Your task to perform on an android device: Open Wikipedia Image 0: 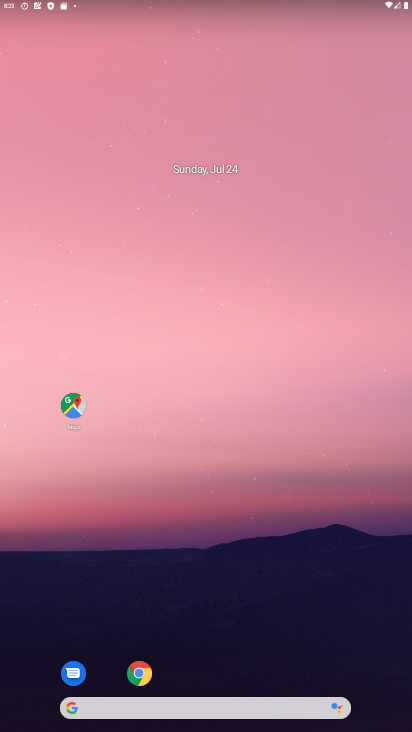
Step 0: drag from (204, 660) to (213, 161)
Your task to perform on an android device: Open Wikipedia Image 1: 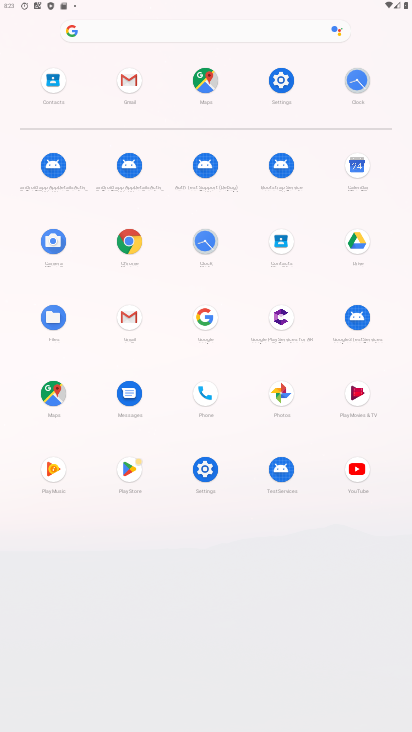
Step 1: drag from (195, 577) to (196, 250)
Your task to perform on an android device: Open Wikipedia Image 2: 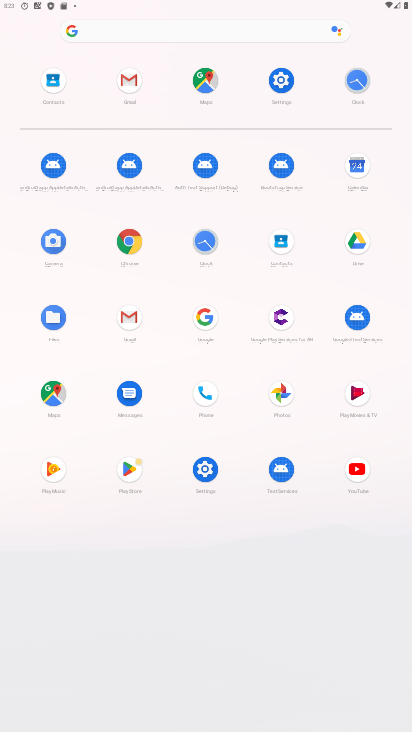
Step 2: drag from (219, 533) to (321, 212)
Your task to perform on an android device: Open Wikipedia Image 3: 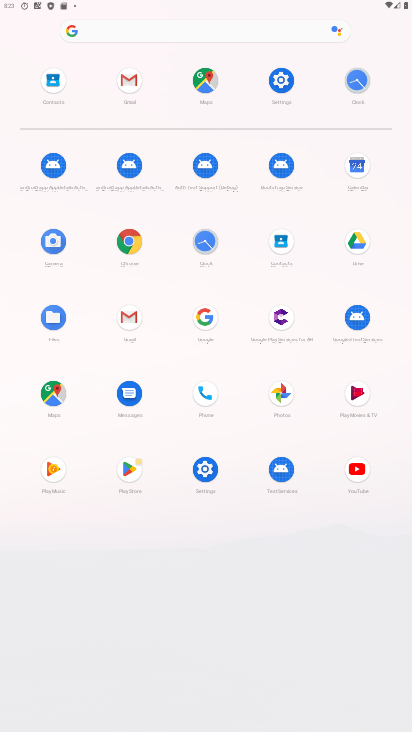
Step 3: drag from (240, 587) to (253, 269)
Your task to perform on an android device: Open Wikipedia Image 4: 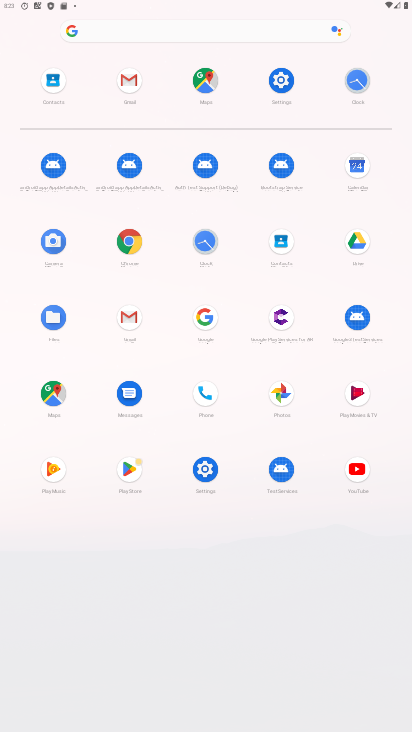
Step 4: click (140, 32)
Your task to perform on an android device: Open Wikipedia Image 5: 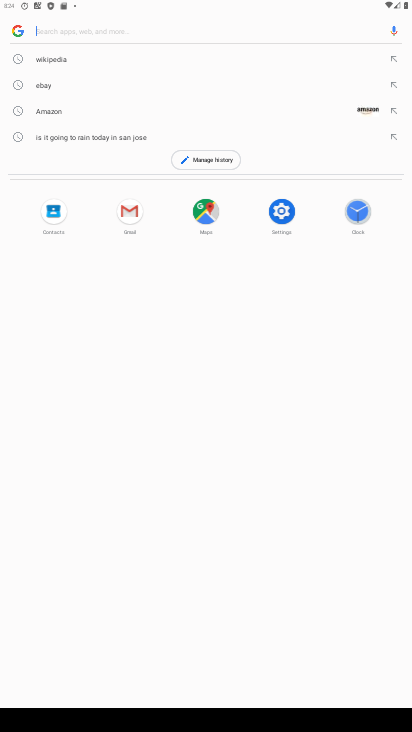
Step 5: type "wikipedia.com"
Your task to perform on an android device: Open Wikipedia Image 6: 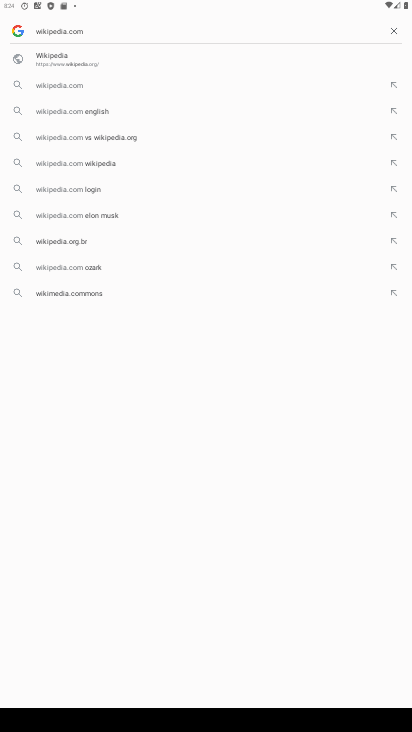
Step 6: click (71, 61)
Your task to perform on an android device: Open Wikipedia Image 7: 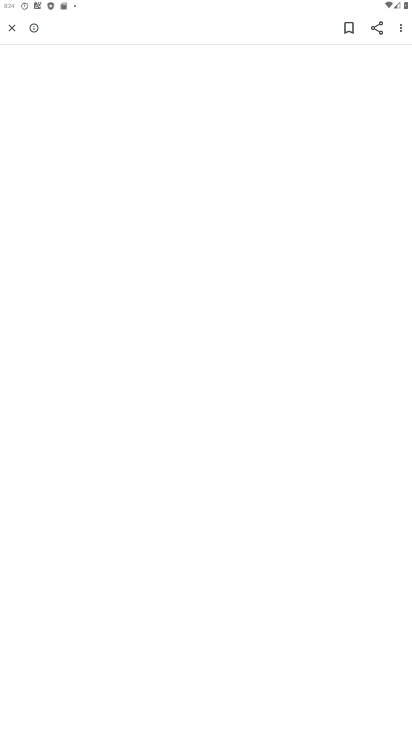
Step 7: task complete